Your task to perform on an android device: turn off location history Image 0: 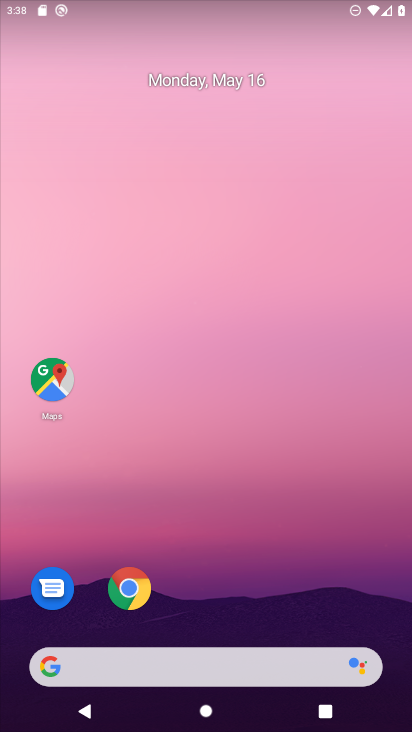
Step 0: click (49, 381)
Your task to perform on an android device: turn off location history Image 1: 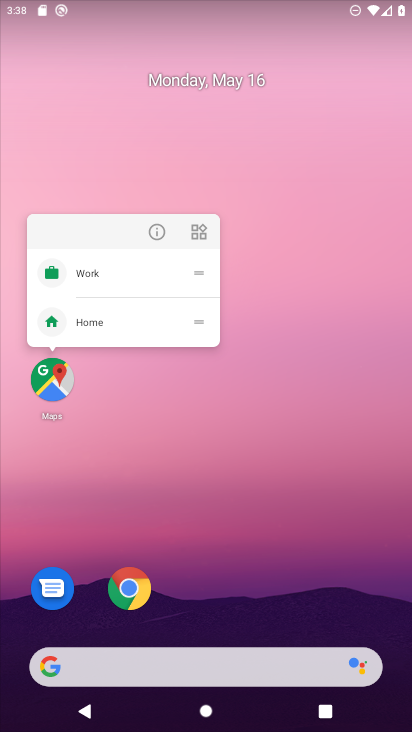
Step 1: click (49, 381)
Your task to perform on an android device: turn off location history Image 2: 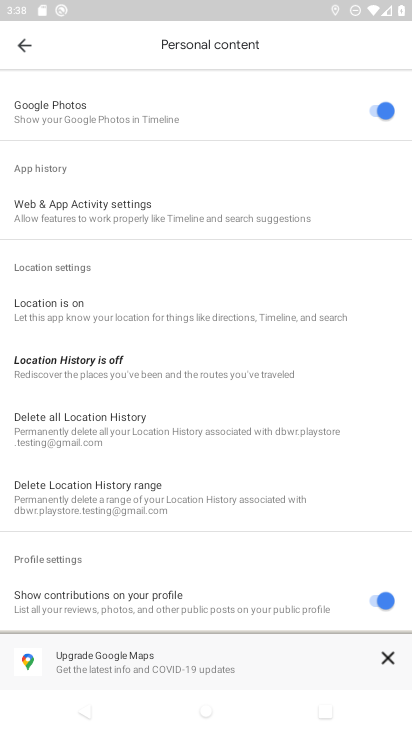
Step 2: click (114, 373)
Your task to perform on an android device: turn off location history Image 3: 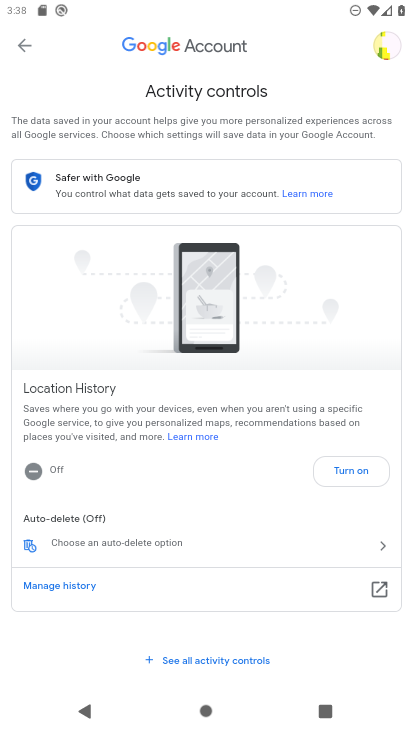
Step 3: task complete